Your task to perform on an android device: Open calendar and show me the first week of next month Image 0: 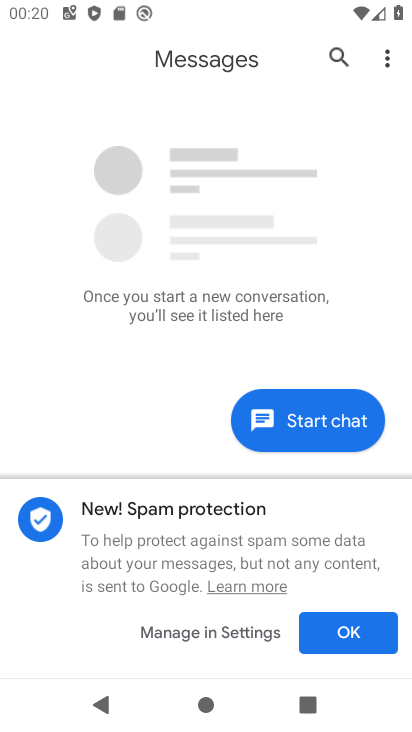
Step 0: press home button
Your task to perform on an android device: Open calendar and show me the first week of next month Image 1: 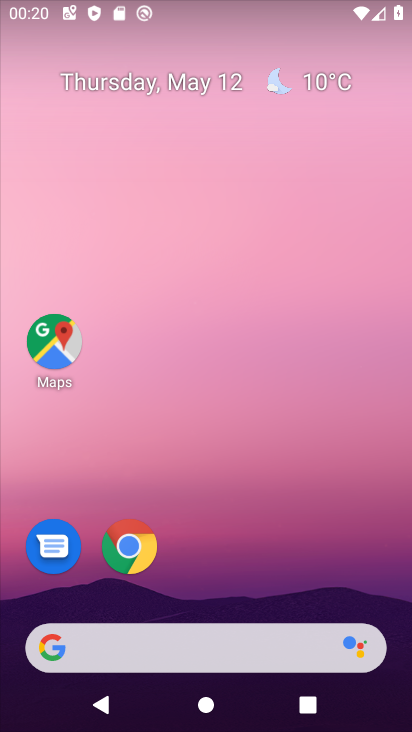
Step 1: drag from (190, 596) to (235, 251)
Your task to perform on an android device: Open calendar and show me the first week of next month Image 2: 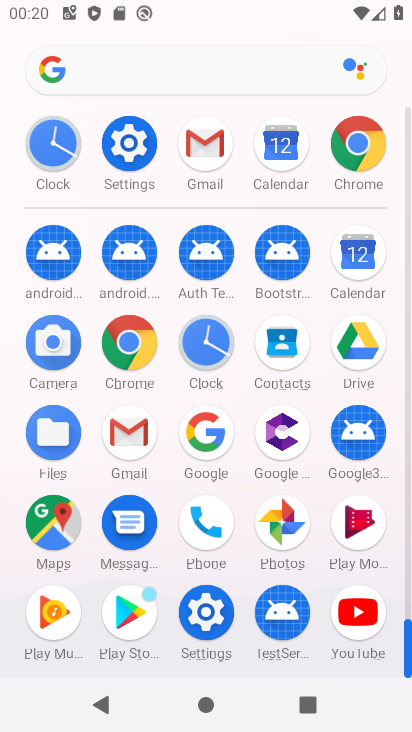
Step 2: click (356, 264)
Your task to perform on an android device: Open calendar and show me the first week of next month Image 3: 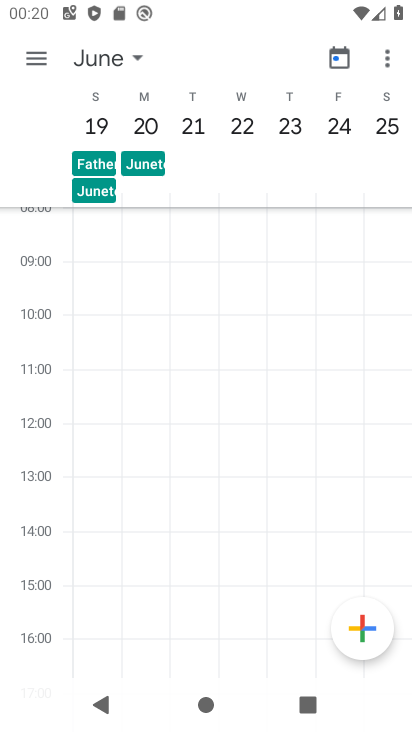
Step 3: click (110, 56)
Your task to perform on an android device: Open calendar and show me the first week of next month Image 4: 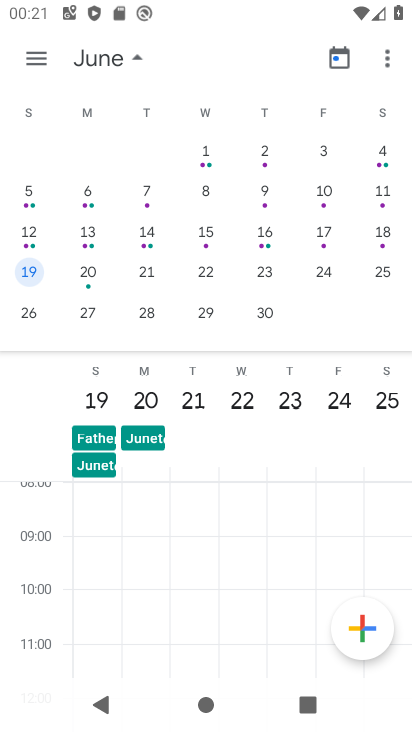
Step 4: click (207, 150)
Your task to perform on an android device: Open calendar and show me the first week of next month Image 5: 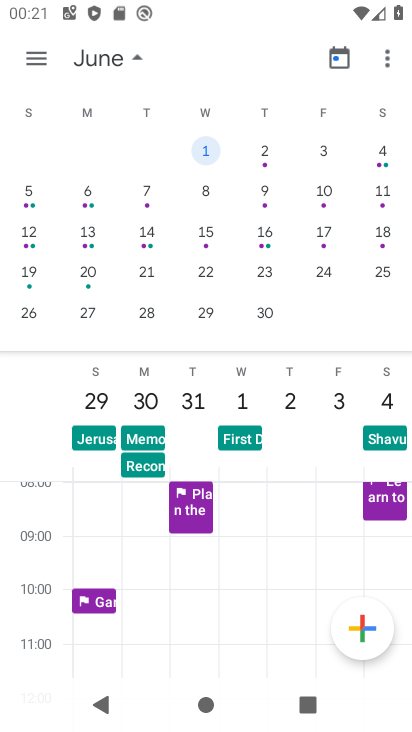
Step 5: click (41, 58)
Your task to perform on an android device: Open calendar and show me the first week of next month Image 6: 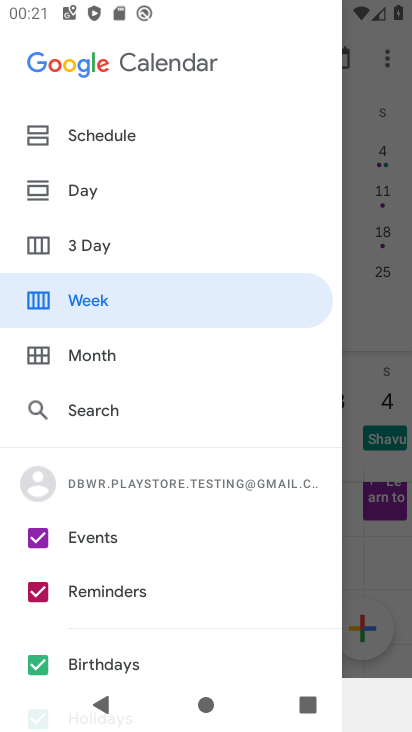
Step 6: click (109, 297)
Your task to perform on an android device: Open calendar and show me the first week of next month Image 7: 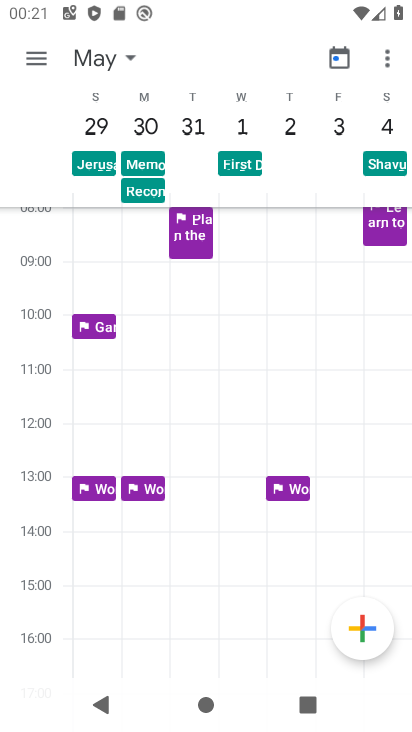
Step 7: task complete